Your task to perform on an android device: Is it going to rain tomorrow? Image 0: 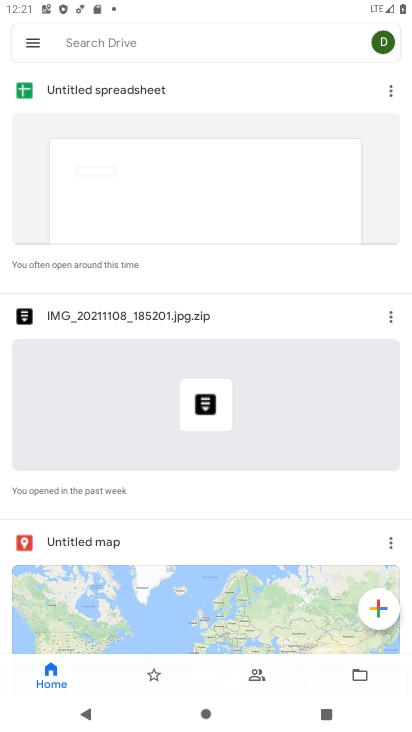
Step 0: press home button
Your task to perform on an android device: Is it going to rain tomorrow? Image 1: 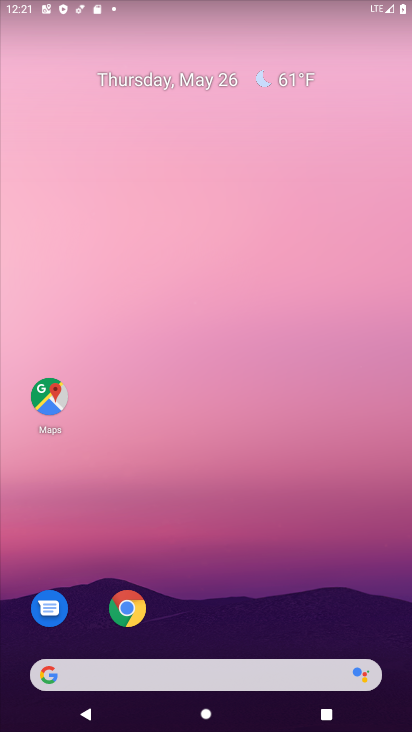
Step 1: click (284, 78)
Your task to perform on an android device: Is it going to rain tomorrow? Image 2: 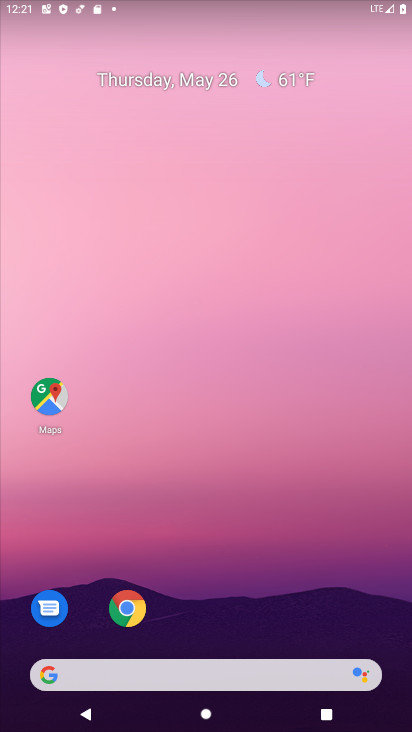
Step 2: click (260, 80)
Your task to perform on an android device: Is it going to rain tomorrow? Image 3: 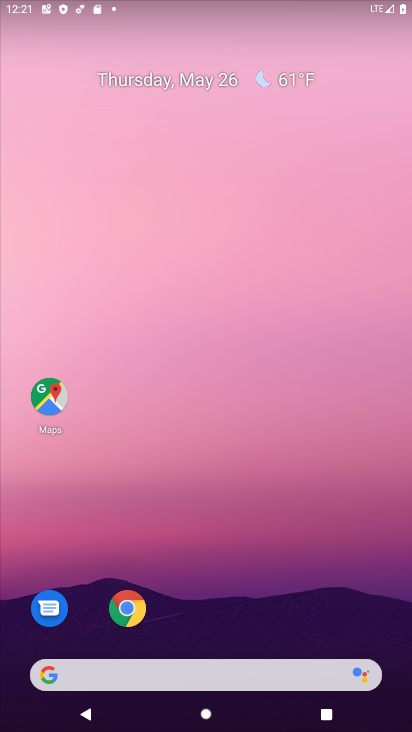
Step 3: click (288, 81)
Your task to perform on an android device: Is it going to rain tomorrow? Image 4: 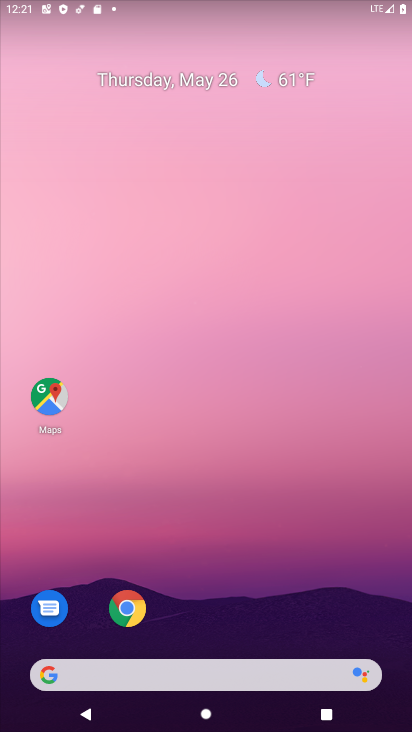
Step 4: click (291, 75)
Your task to perform on an android device: Is it going to rain tomorrow? Image 5: 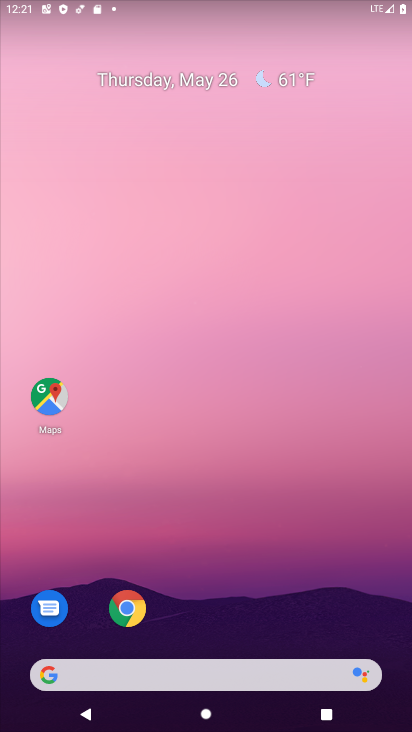
Step 5: click (291, 75)
Your task to perform on an android device: Is it going to rain tomorrow? Image 6: 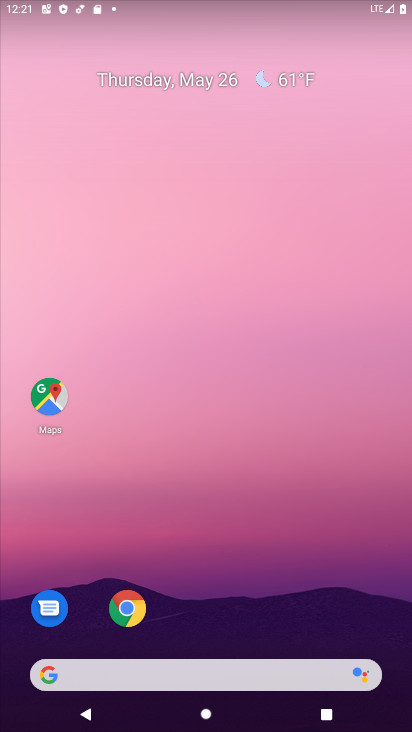
Step 6: click (291, 75)
Your task to perform on an android device: Is it going to rain tomorrow? Image 7: 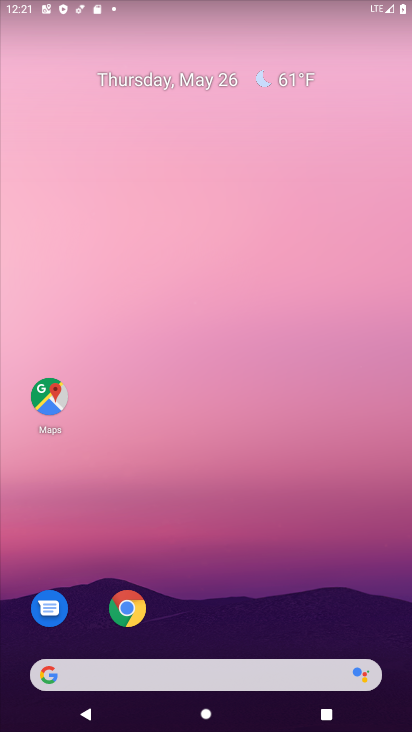
Step 7: click (268, 78)
Your task to perform on an android device: Is it going to rain tomorrow? Image 8: 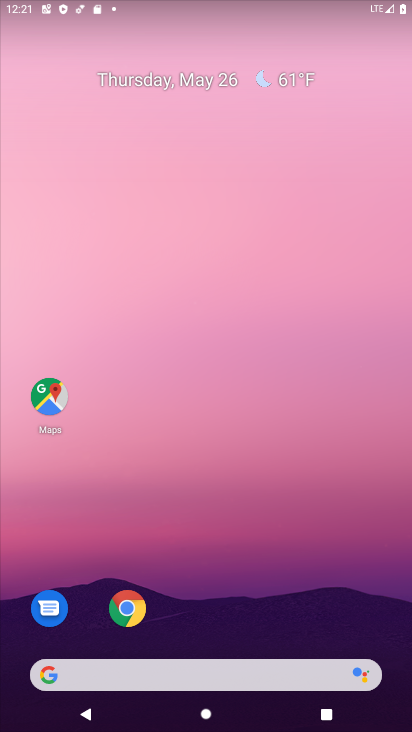
Step 8: click (268, 78)
Your task to perform on an android device: Is it going to rain tomorrow? Image 9: 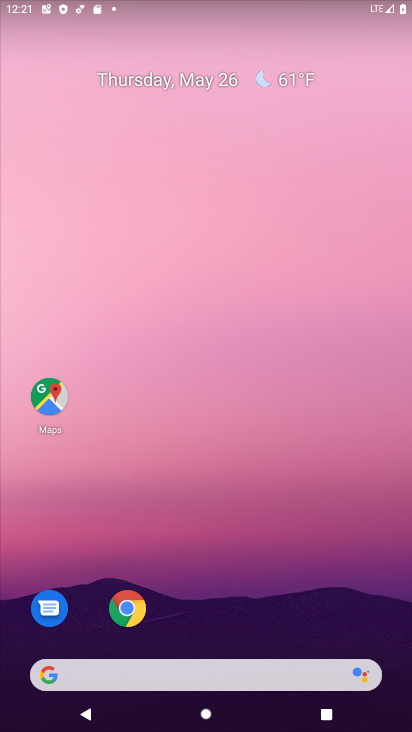
Step 9: click (268, 78)
Your task to perform on an android device: Is it going to rain tomorrow? Image 10: 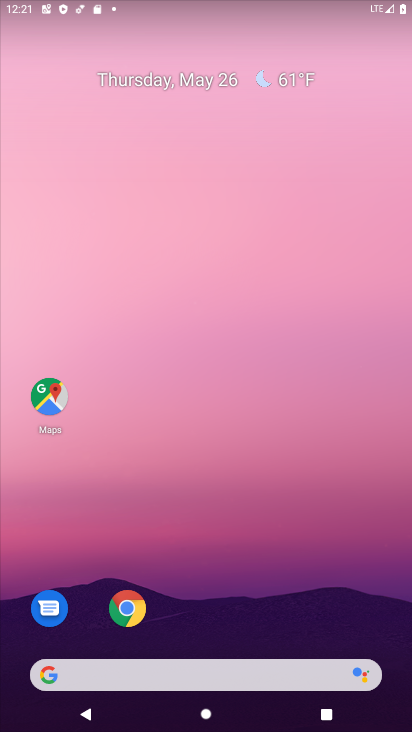
Step 10: click (268, 78)
Your task to perform on an android device: Is it going to rain tomorrow? Image 11: 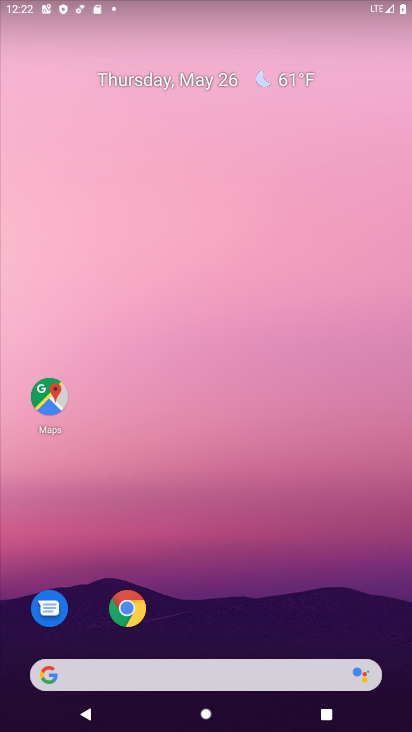
Step 11: drag from (379, 516) to (350, 46)
Your task to perform on an android device: Is it going to rain tomorrow? Image 12: 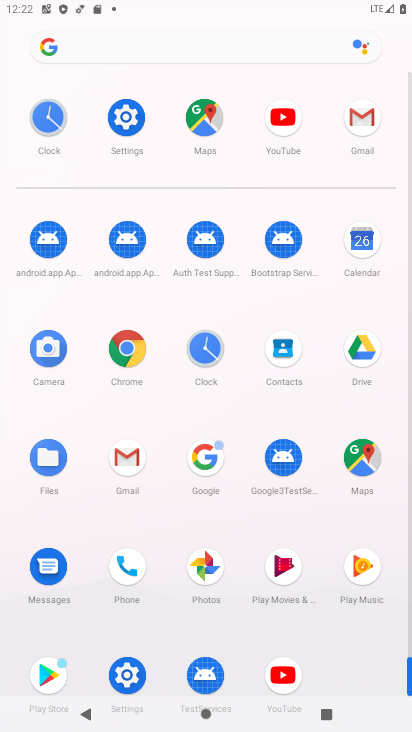
Step 12: click (148, 42)
Your task to perform on an android device: Is it going to rain tomorrow? Image 13: 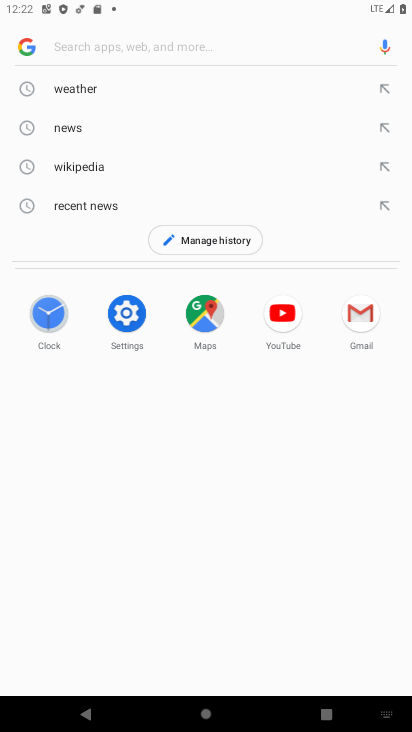
Step 13: click (81, 83)
Your task to perform on an android device: Is it going to rain tomorrow? Image 14: 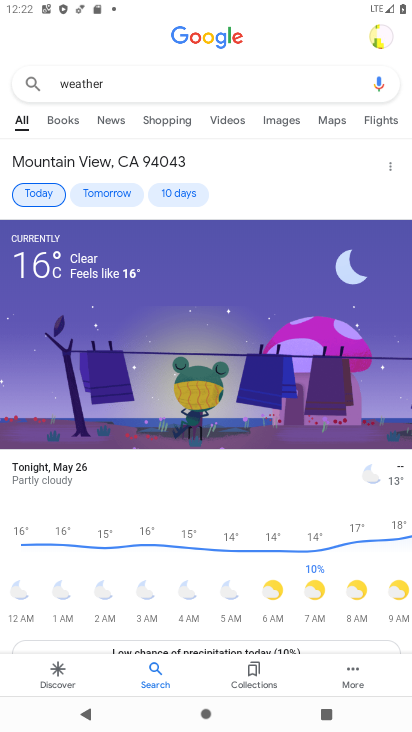
Step 14: click (107, 195)
Your task to perform on an android device: Is it going to rain tomorrow? Image 15: 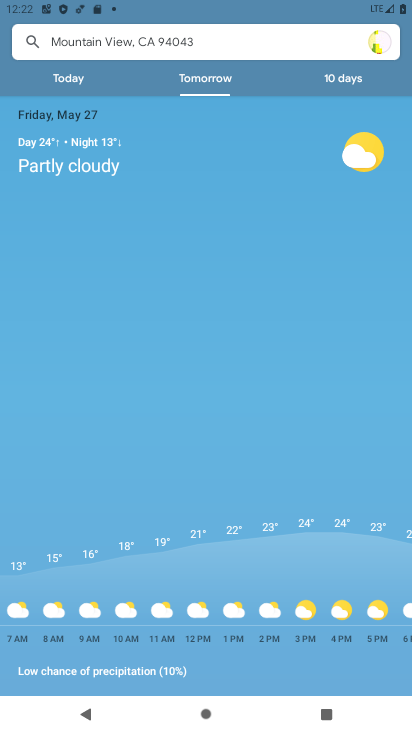
Step 15: task complete